Your task to perform on an android device: Open the Play Movies app and select the watchlist tab. Image 0: 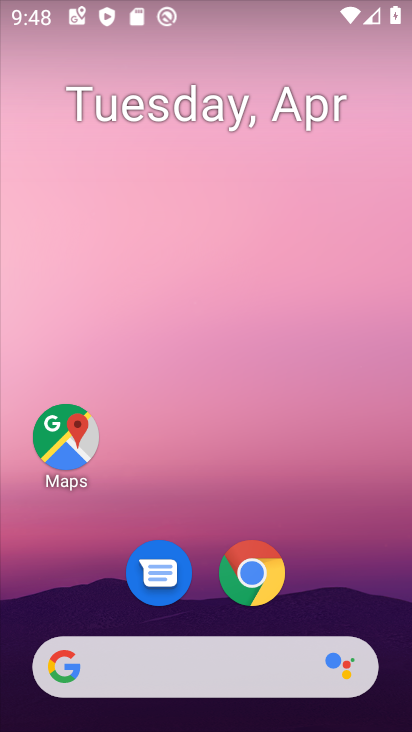
Step 0: drag from (195, 608) to (218, 131)
Your task to perform on an android device: Open the Play Movies app and select the watchlist tab. Image 1: 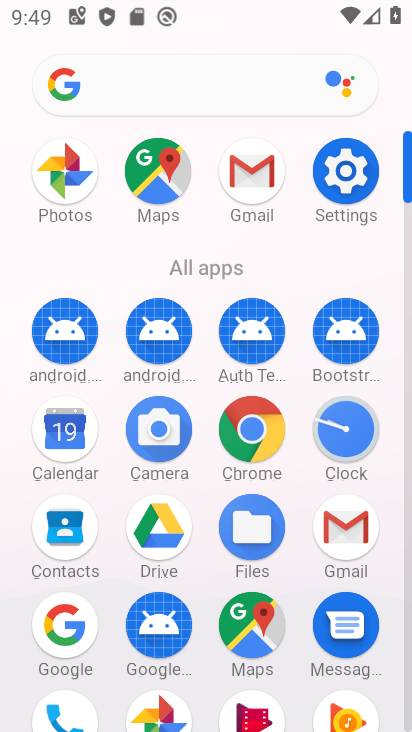
Step 1: click (252, 700)
Your task to perform on an android device: Open the Play Movies app and select the watchlist tab. Image 2: 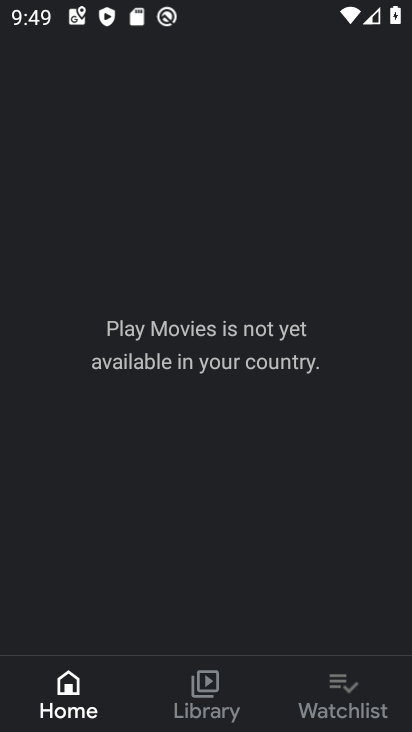
Step 2: click (333, 688)
Your task to perform on an android device: Open the Play Movies app and select the watchlist tab. Image 3: 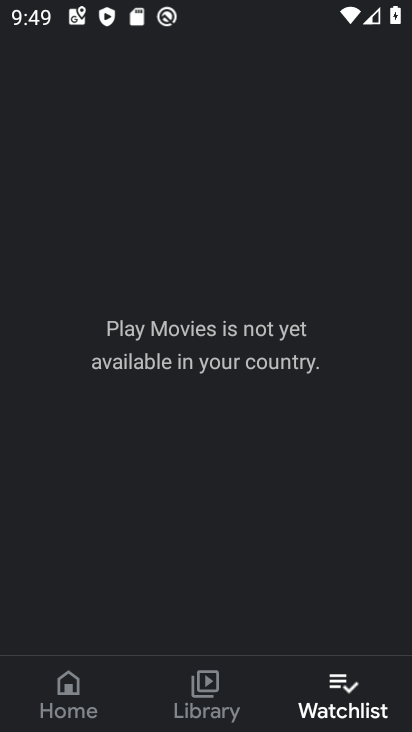
Step 3: task complete